Your task to perform on an android device: Go to wifi settings Image 0: 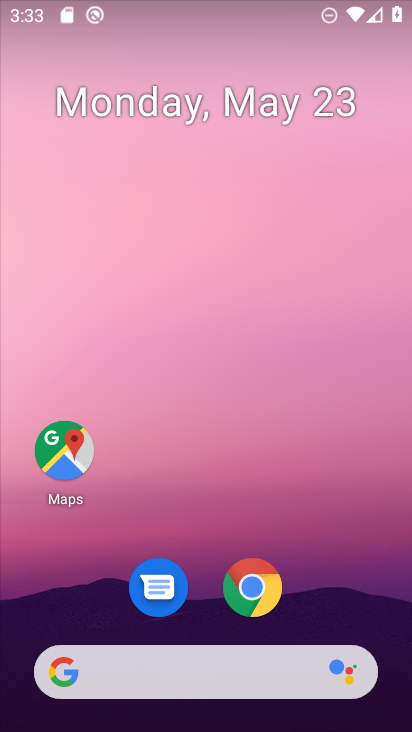
Step 0: drag from (215, 624) to (243, 101)
Your task to perform on an android device: Go to wifi settings Image 1: 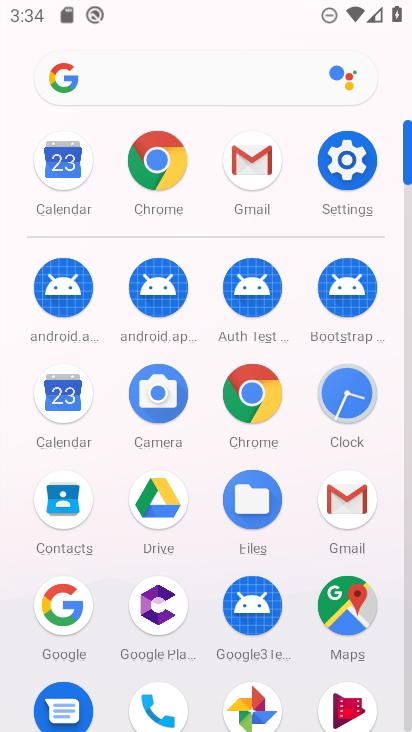
Step 1: click (351, 176)
Your task to perform on an android device: Go to wifi settings Image 2: 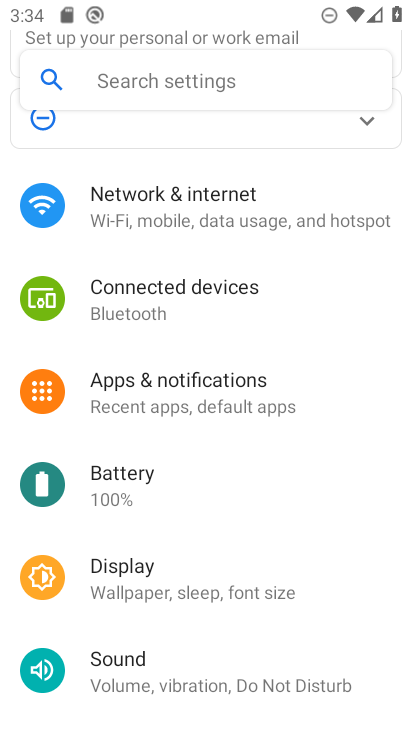
Step 2: click (227, 243)
Your task to perform on an android device: Go to wifi settings Image 3: 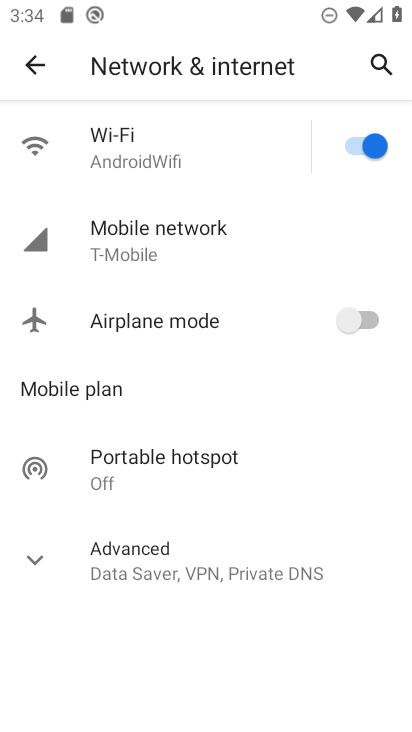
Step 3: click (147, 159)
Your task to perform on an android device: Go to wifi settings Image 4: 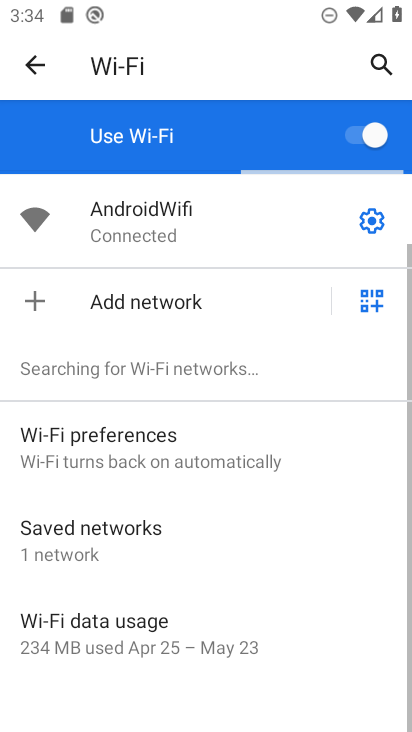
Step 4: task complete